Your task to perform on an android device: add a contact Image 0: 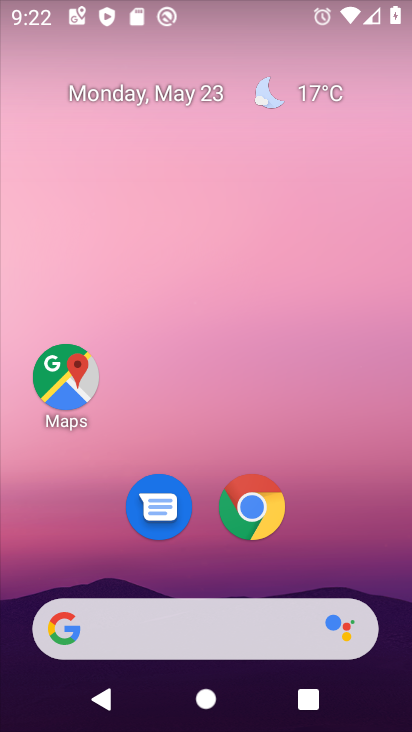
Step 0: drag from (360, 581) to (300, 21)
Your task to perform on an android device: add a contact Image 1: 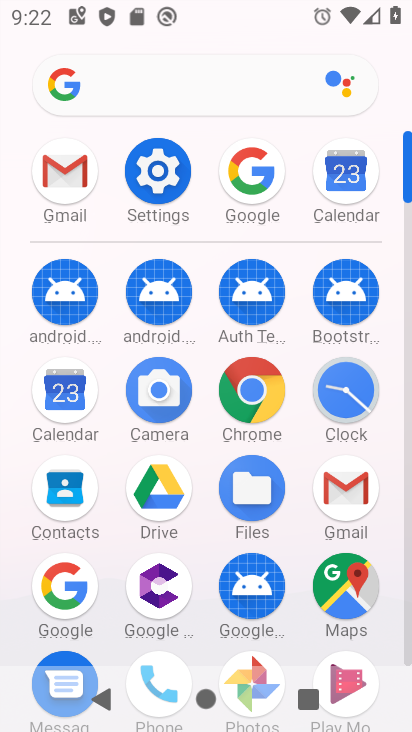
Step 1: click (67, 489)
Your task to perform on an android device: add a contact Image 2: 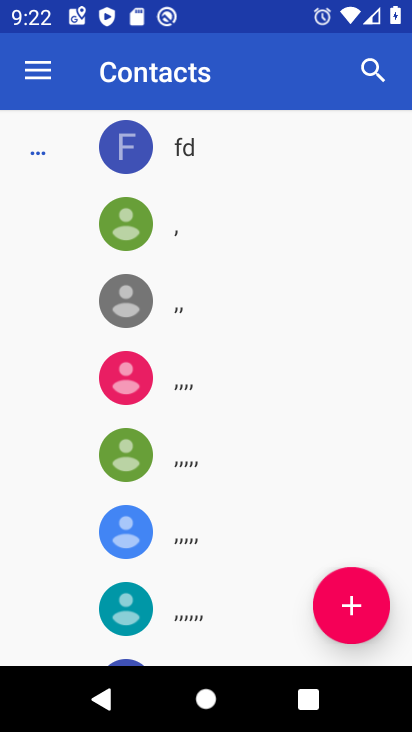
Step 2: click (343, 618)
Your task to perform on an android device: add a contact Image 3: 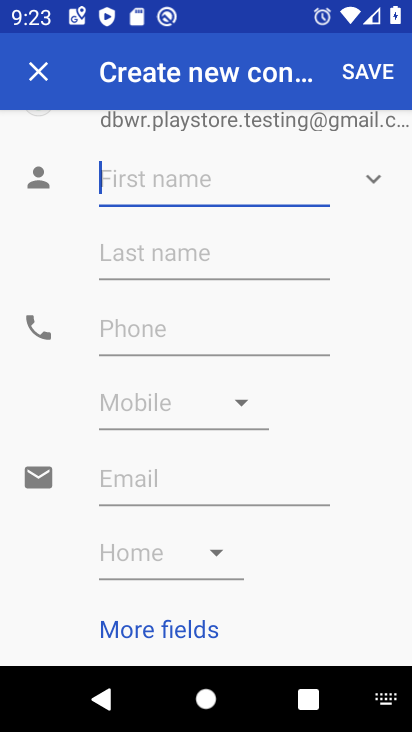
Step 3: type "naina"
Your task to perform on an android device: add a contact Image 4: 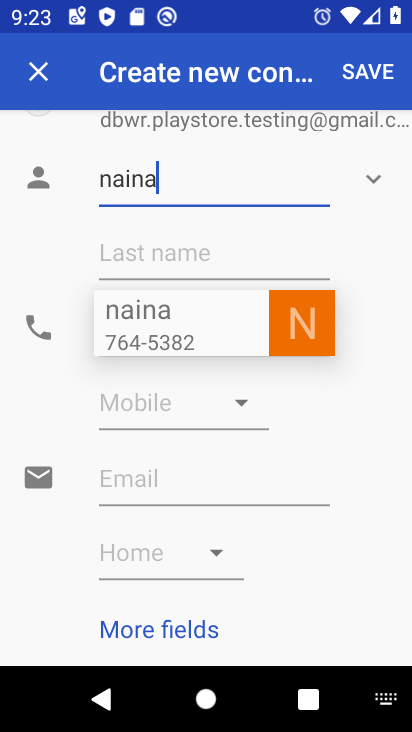
Step 4: click (365, 329)
Your task to perform on an android device: add a contact Image 5: 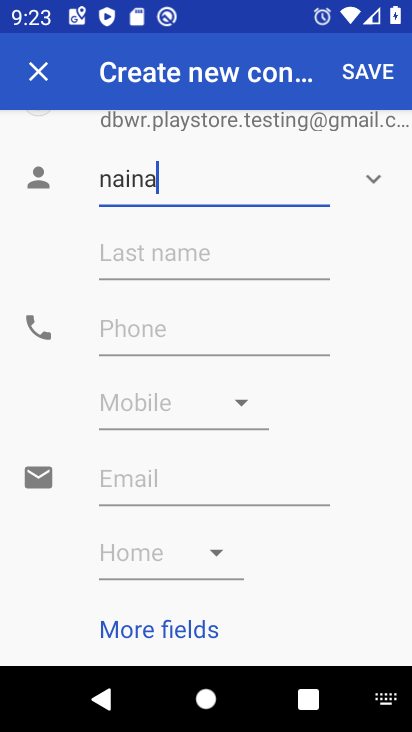
Step 5: click (98, 338)
Your task to perform on an android device: add a contact Image 6: 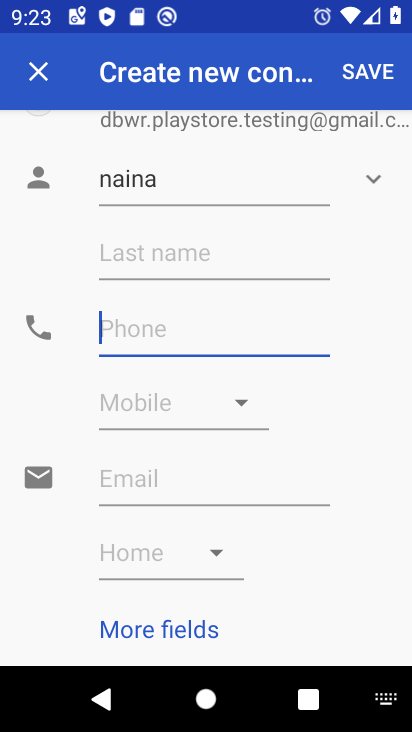
Step 6: type "9877667900"
Your task to perform on an android device: add a contact Image 7: 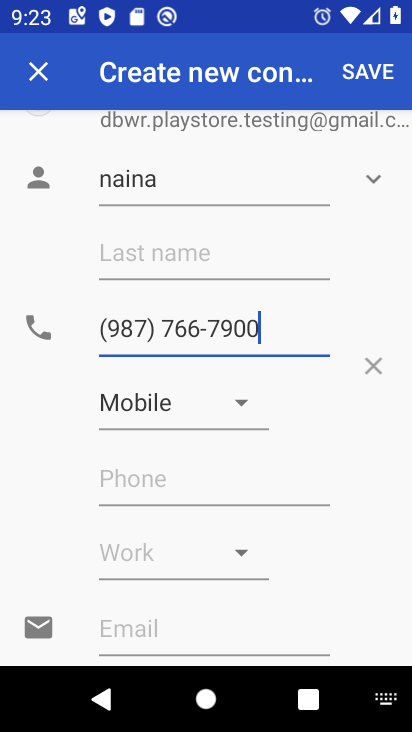
Step 7: click (363, 76)
Your task to perform on an android device: add a contact Image 8: 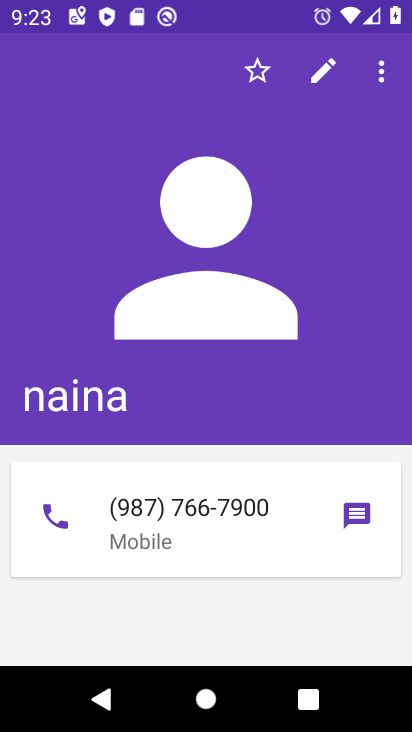
Step 8: task complete